Your task to perform on an android device: turn smart compose on in the gmail app Image 0: 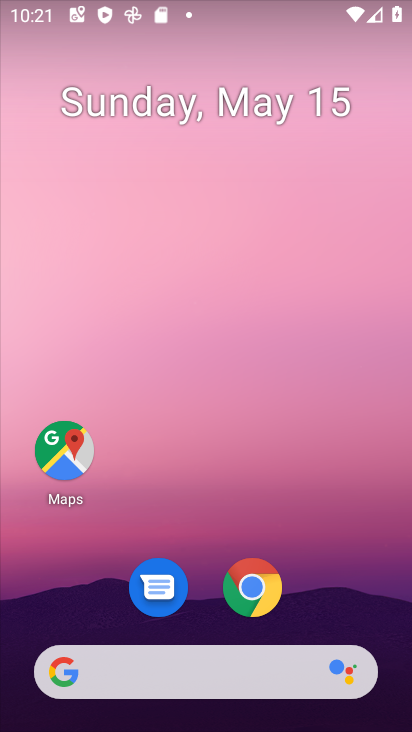
Step 0: drag from (390, 626) to (280, 73)
Your task to perform on an android device: turn smart compose on in the gmail app Image 1: 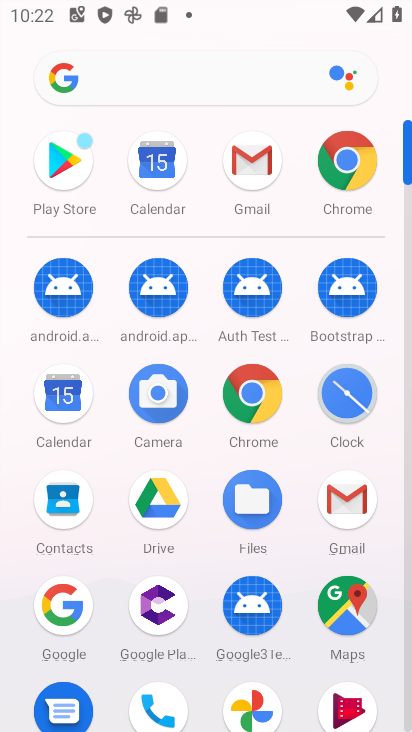
Step 1: click (348, 512)
Your task to perform on an android device: turn smart compose on in the gmail app Image 2: 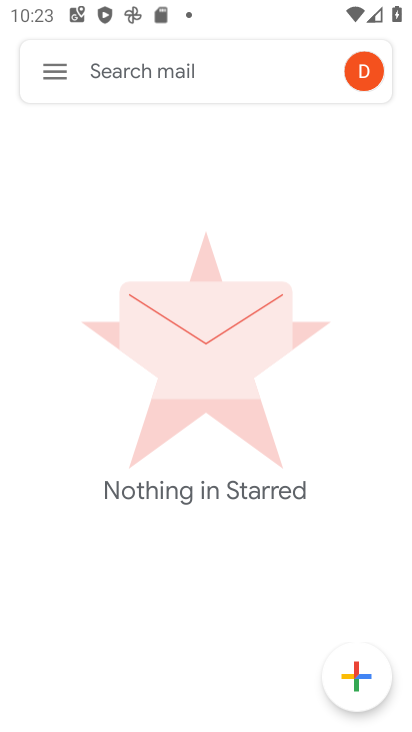
Step 2: click (40, 76)
Your task to perform on an android device: turn smart compose on in the gmail app Image 3: 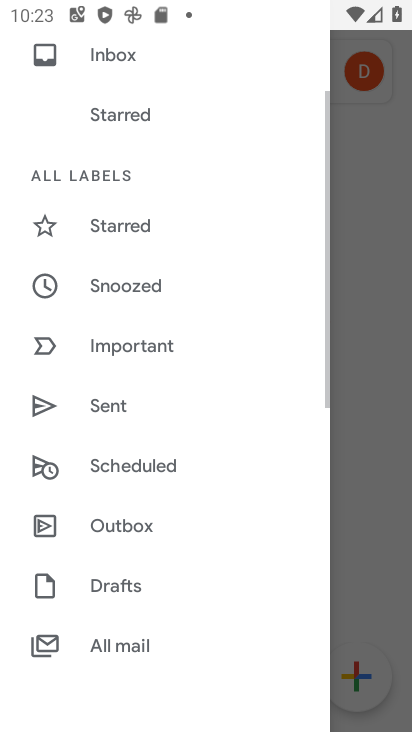
Step 3: drag from (171, 613) to (153, 113)
Your task to perform on an android device: turn smart compose on in the gmail app Image 4: 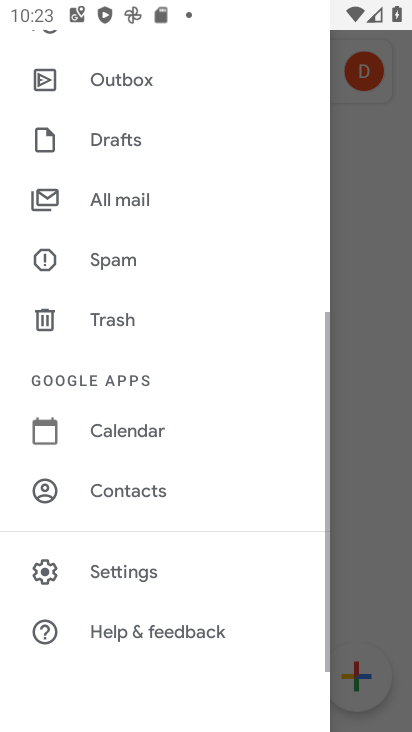
Step 4: click (143, 566)
Your task to perform on an android device: turn smart compose on in the gmail app Image 5: 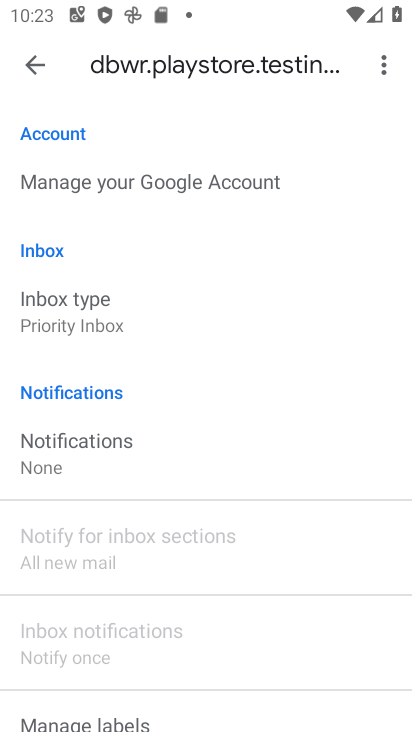
Step 5: task complete